Your task to perform on an android device: Go to network settings Image 0: 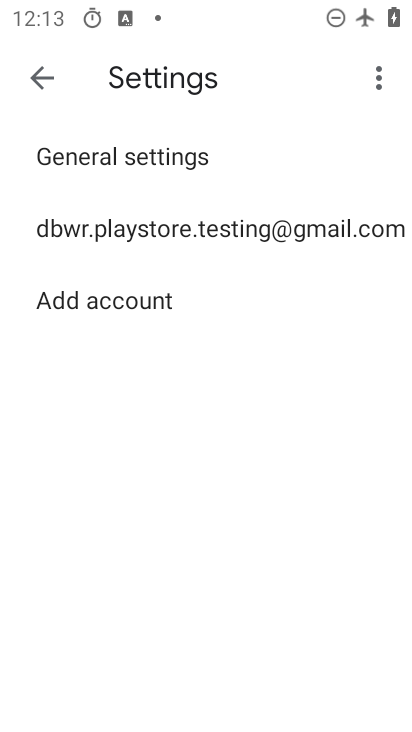
Step 0: press home button
Your task to perform on an android device: Go to network settings Image 1: 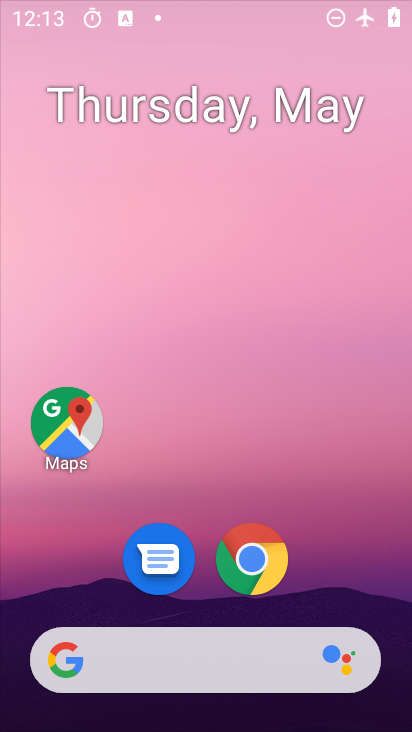
Step 1: drag from (207, 653) to (264, 148)
Your task to perform on an android device: Go to network settings Image 2: 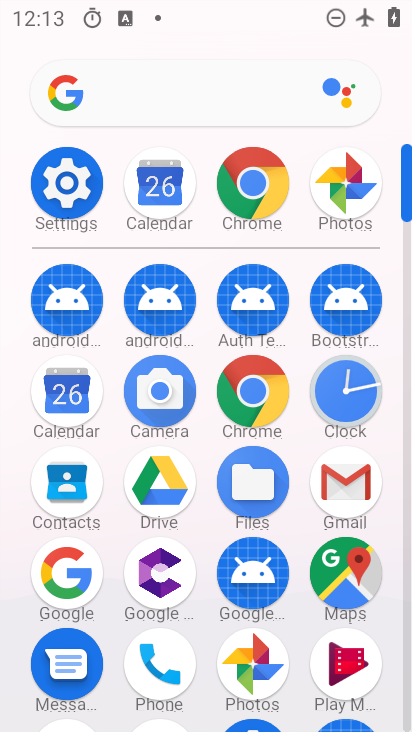
Step 2: click (79, 214)
Your task to perform on an android device: Go to network settings Image 3: 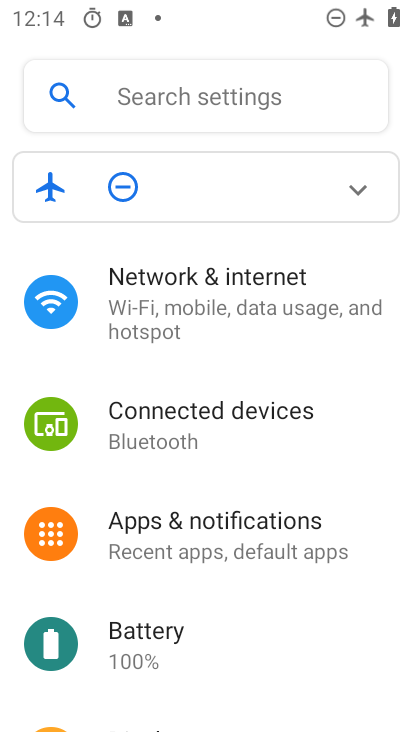
Step 3: click (267, 309)
Your task to perform on an android device: Go to network settings Image 4: 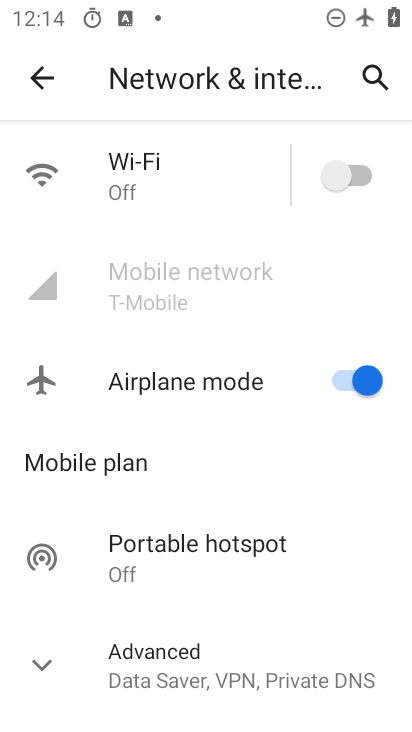
Step 4: task complete